Your task to perform on an android device: Go to network settings Image 0: 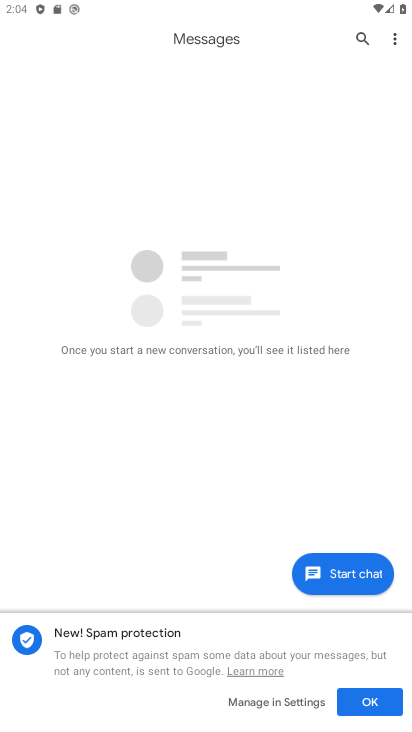
Step 0: press home button
Your task to perform on an android device: Go to network settings Image 1: 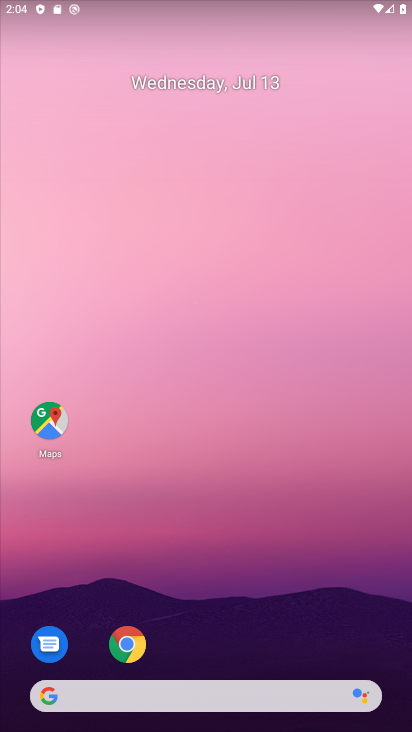
Step 1: drag from (274, 620) to (258, 71)
Your task to perform on an android device: Go to network settings Image 2: 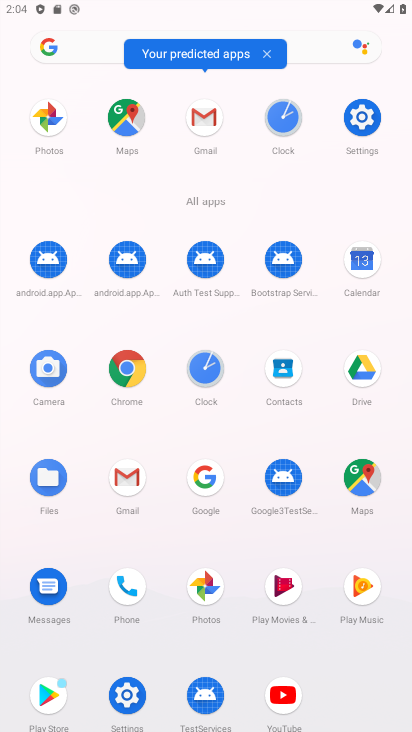
Step 2: click (361, 127)
Your task to perform on an android device: Go to network settings Image 3: 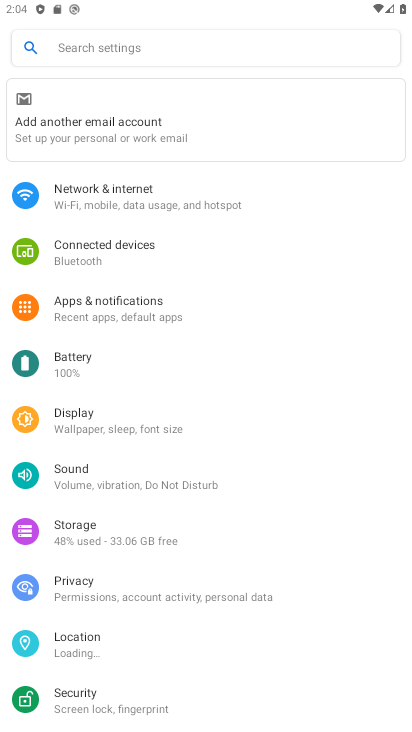
Step 3: click (138, 200)
Your task to perform on an android device: Go to network settings Image 4: 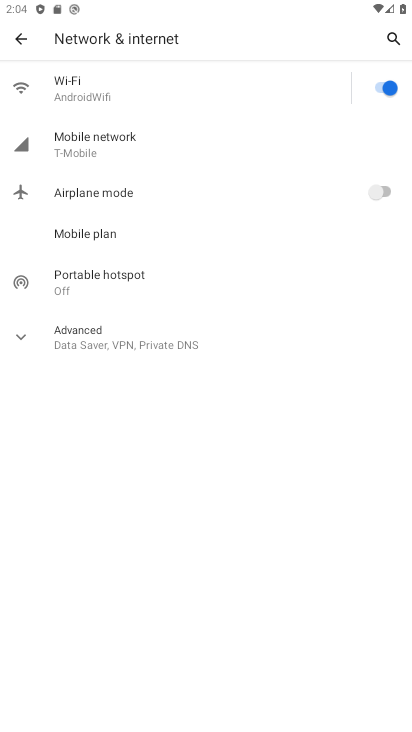
Step 4: click (97, 133)
Your task to perform on an android device: Go to network settings Image 5: 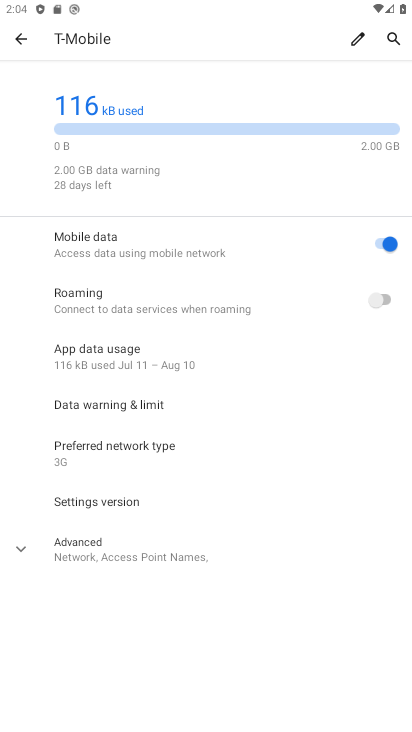
Step 5: task complete